Your task to perform on an android device: What's the weather today? Image 0: 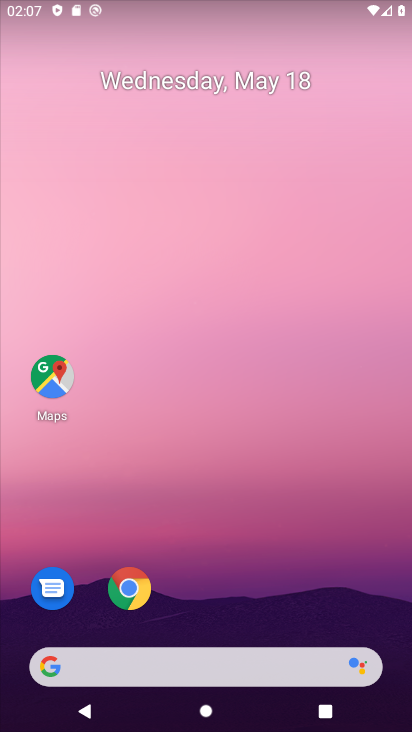
Step 0: click (216, 669)
Your task to perform on an android device: What's the weather today? Image 1: 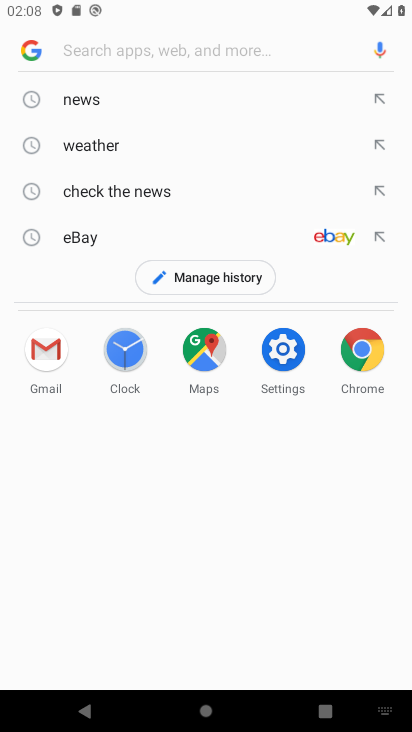
Step 1: click (74, 148)
Your task to perform on an android device: What's the weather today? Image 2: 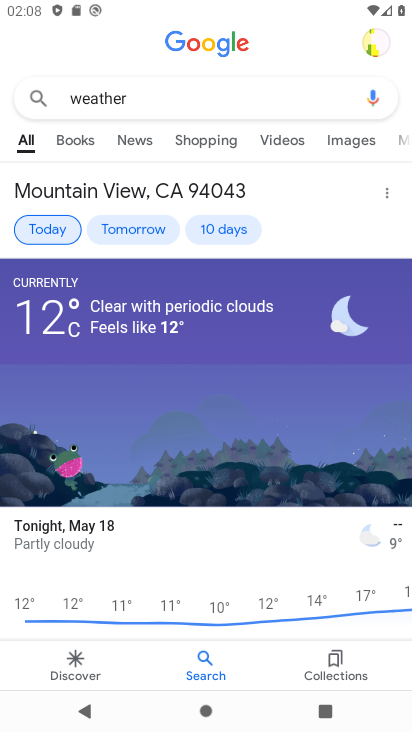
Step 2: task complete